Your task to perform on an android device: open the mobile data screen to see how much data has been used Image 0: 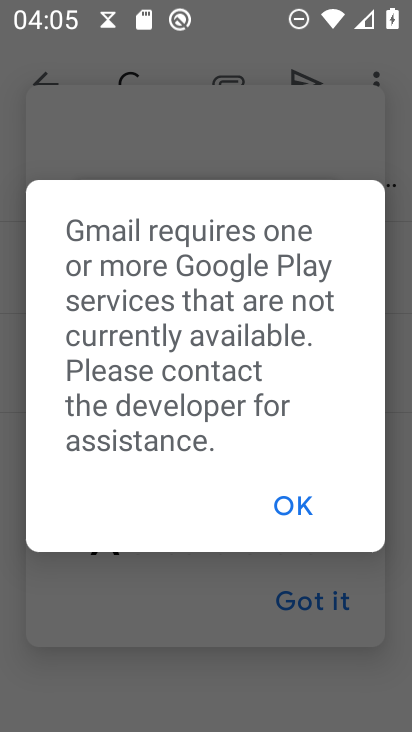
Step 0: press home button
Your task to perform on an android device: open the mobile data screen to see how much data has been used Image 1: 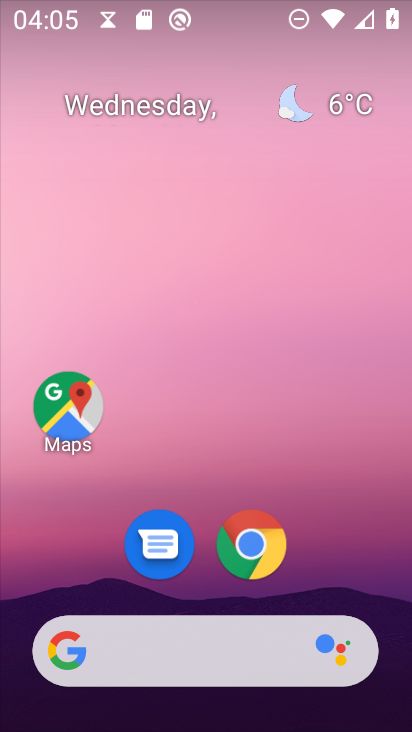
Step 1: drag from (237, 494) to (344, 87)
Your task to perform on an android device: open the mobile data screen to see how much data has been used Image 2: 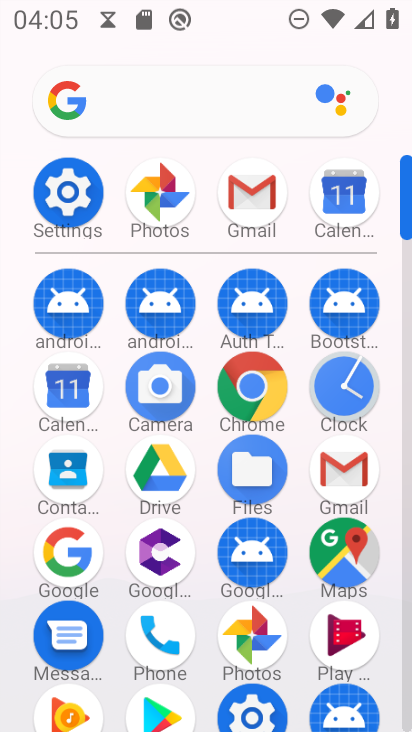
Step 2: click (66, 206)
Your task to perform on an android device: open the mobile data screen to see how much data has been used Image 3: 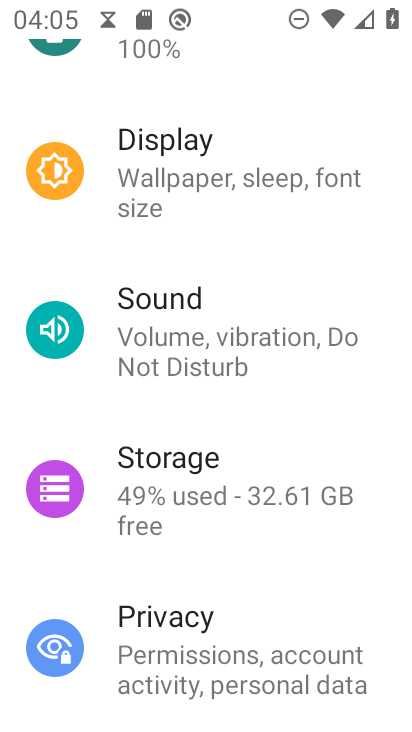
Step 3: drag from (218, 287) to (256, 631)
Your task to perform on an android device: open the mobile data screen to see how much data has been used Image 4: 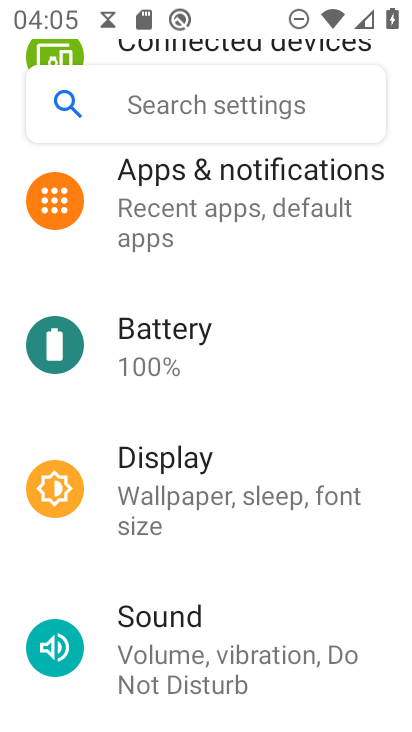
Step 4: drag from (272, 368) to (262, 505)
Your task to perform on an android device: open the mobile data screen to see how much data has been used Image 5: 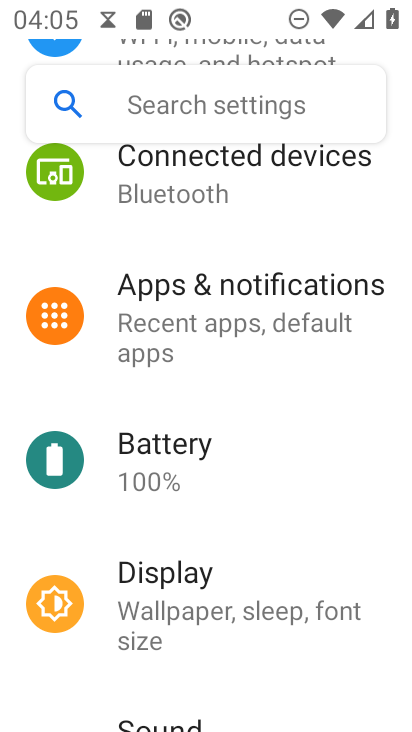
Step 5: drag from (231, 223) to (287, 577)
Your task to perform on an android device: open the mobile data screen to see how much data has been used Image 6: 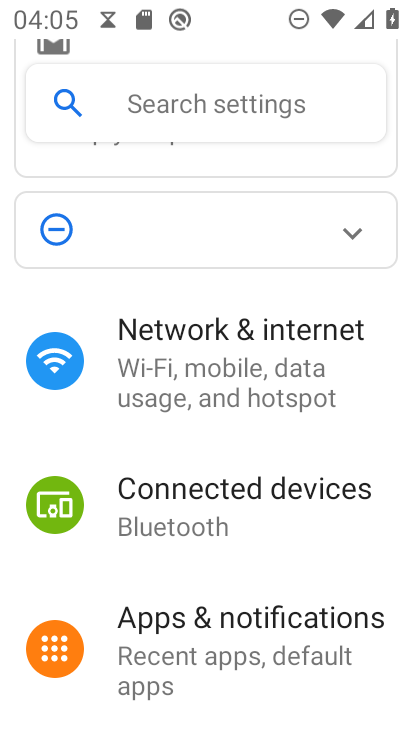
Step 6: click (274, 381)
Your task to perform on an android device: open the mobile data screen to see how much data has been used Image 7: 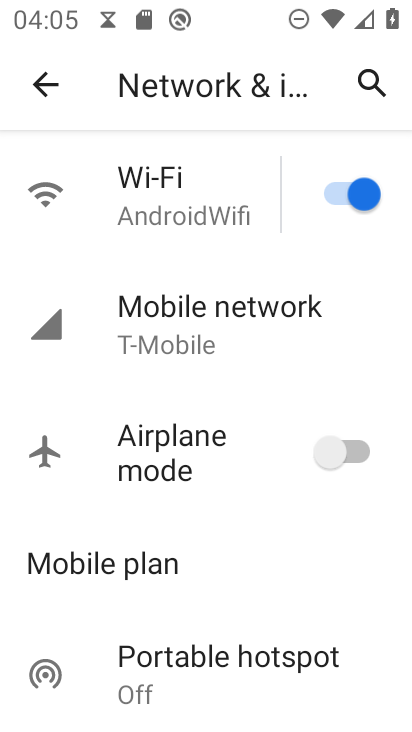
Step 7: click (193, 319)
Your task to perform on an android device: open the mobile data screen to see how much data has been used Image 8: 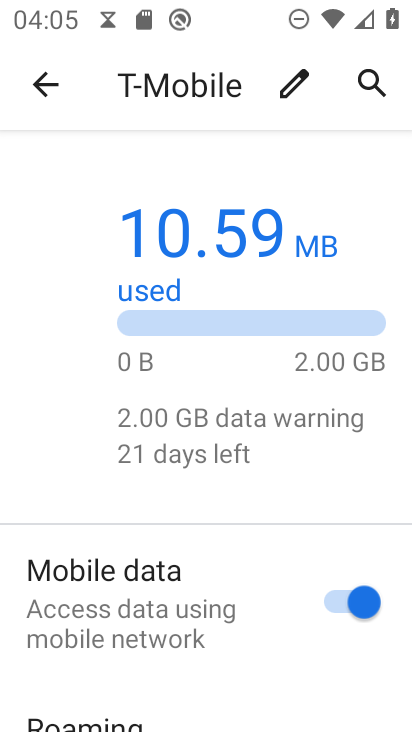
Step 8: drag from (234, 644) to (310, 285)
Your task to perform on an android device: open the mobile data screen to see how much data has been used Image 9: 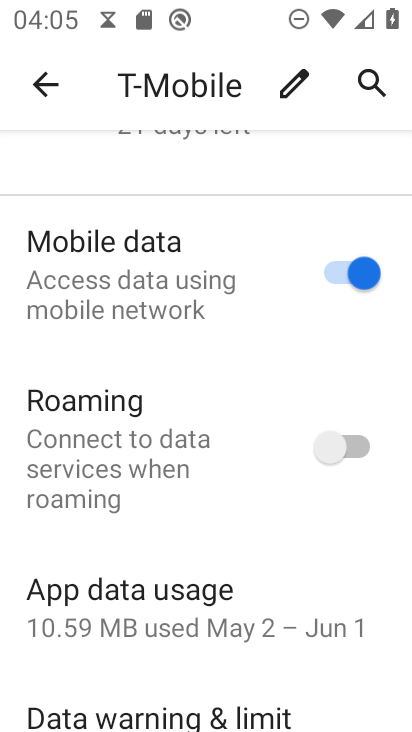
Step 9: click (193, 624)
Your task to perform on an android device: open the mobile data screen to see how much data has been used Image 10: 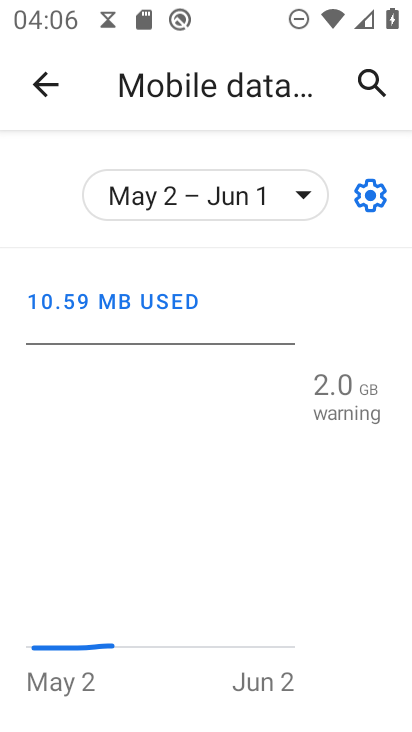
Step 10: task complete